Your task to perform on an android device: Go to Amazon Image 0: 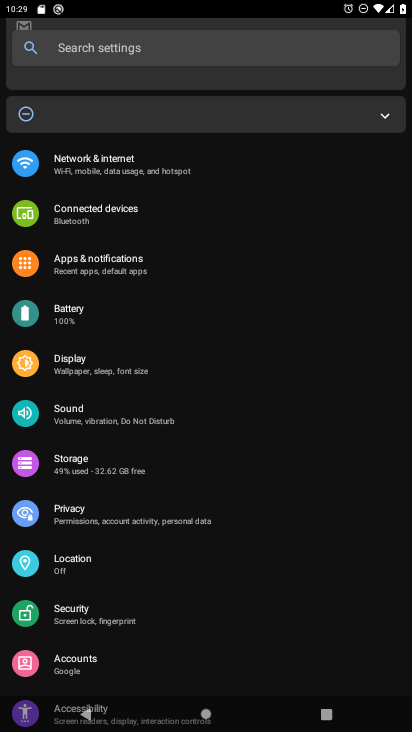
Step 0: press home button
Your task to perform on an android device: Go to Amazon Image 1: 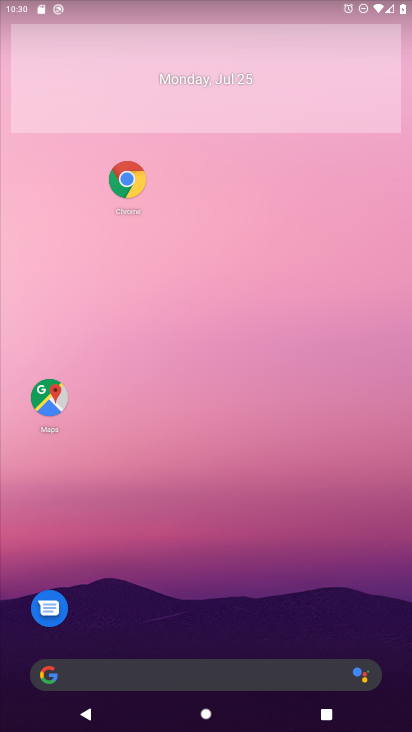
Step 1: click (118, 179)
Your task to perform on an android device: Go to Amazon Image 2: 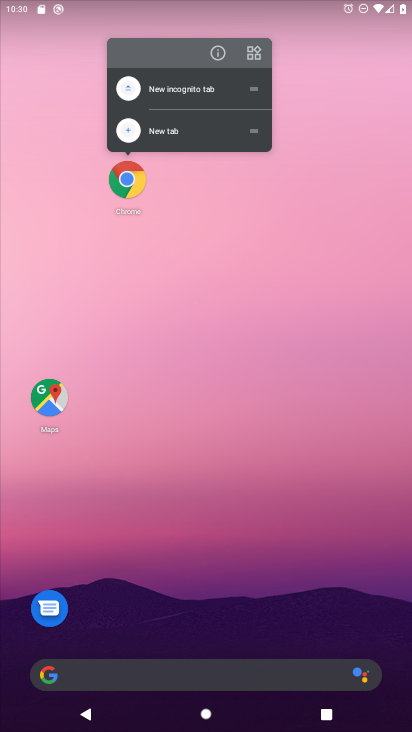
Step 2: click (132, 171)
Your task to perform on an android device: Go to Amazon Image 3: 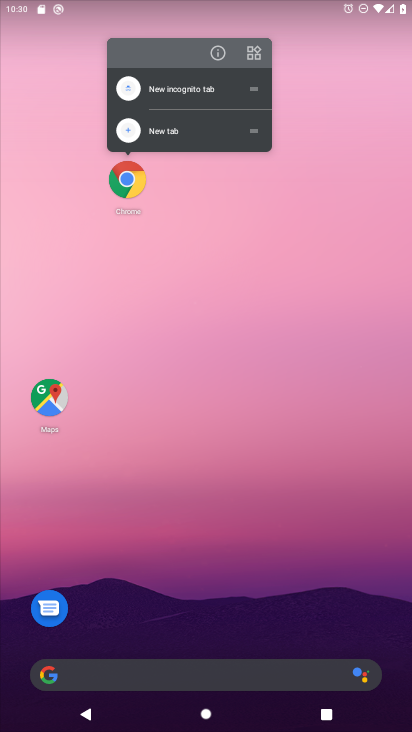
Step 3: click (132, 171)
Your task to perform on an android device: Go to Amazon Image 4: 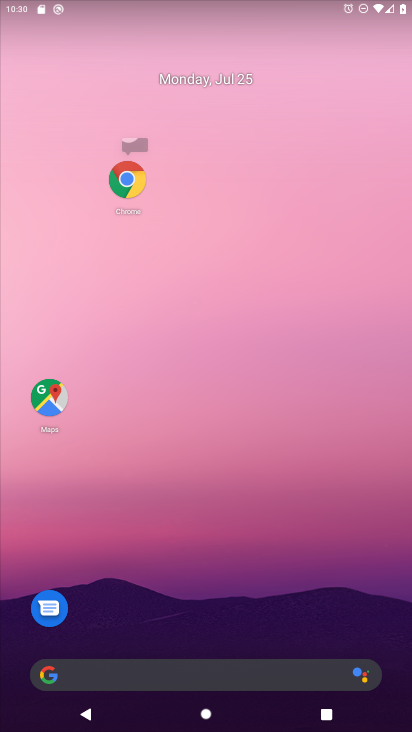
Step 4: click (132, 171)
Your task to perform on an android device: Go to Amazon Image 5: 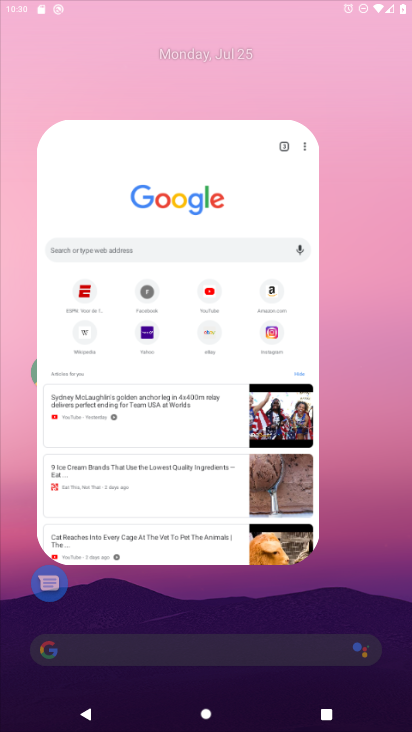
Step 5: click (132, 171)
Your task to perform on an android device: Go to Amazon Image 6: 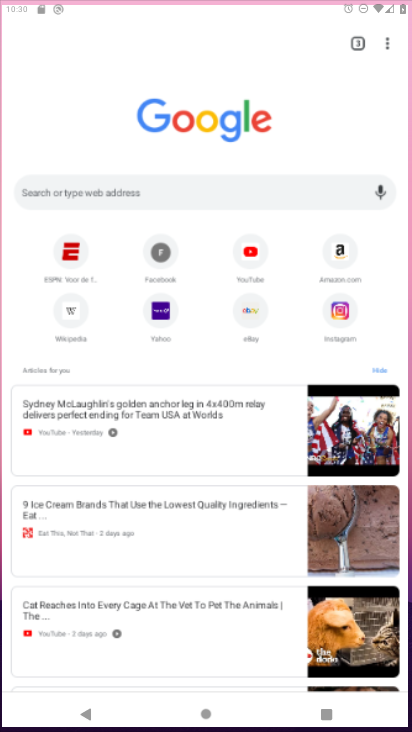
Step 6: click (132, 171)
Your task to perform on an android device: Go to Amazon Image 7: 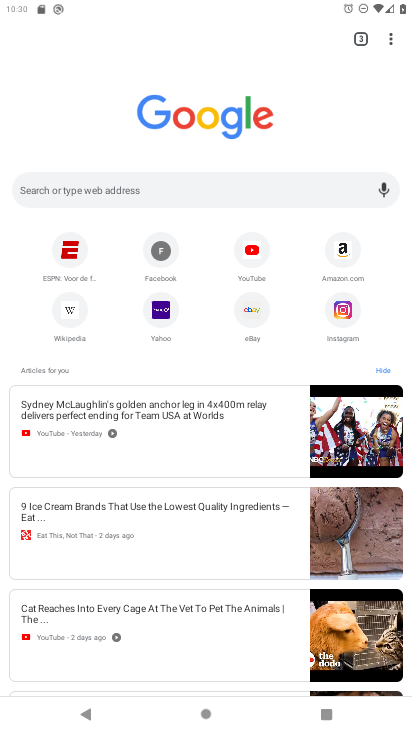
Step 7: click (343, 254)
Your task to perform on an android device: Go to Amazon Image 8: 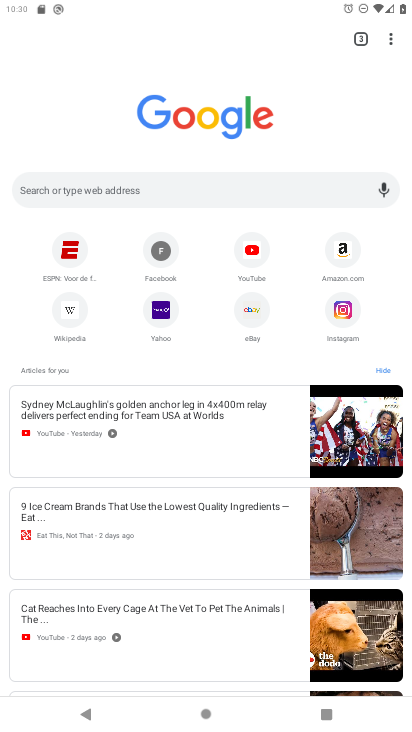
Step 8: click (343, 254)
Your task to perform on an android device: Go to Amazon Image 9: 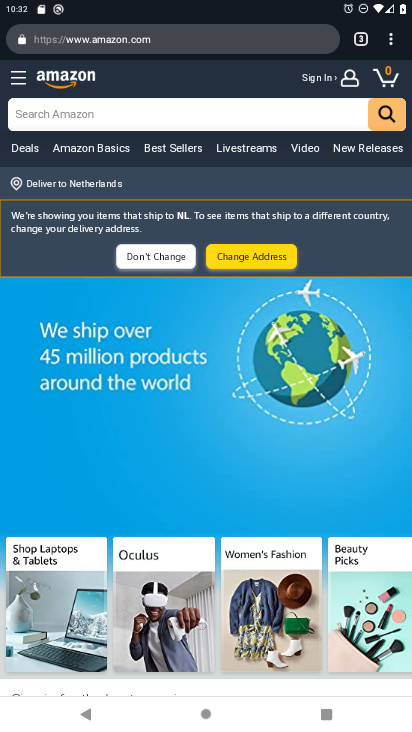
Step 9: task complete